Your task to perform on an android device: Open Google Image 0: 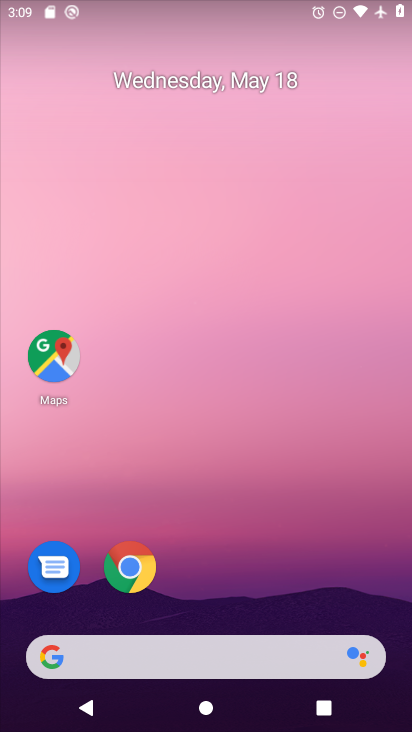
Step 0: drag from (284, 592) to (270, 196)
Your task to perform on an android device: Open Google Image 1: 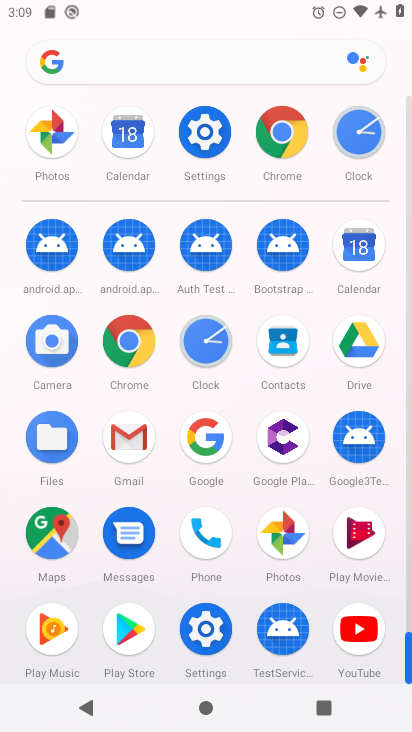
Step 1: click (189, 437)
Your task to perform on an android device: Open Google Image 2: 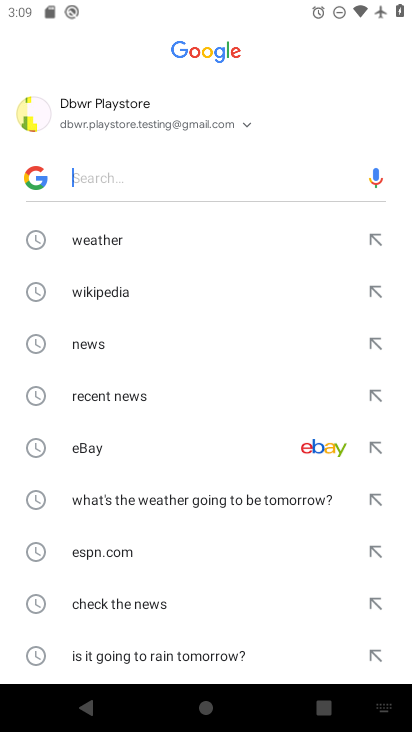
Step 2: task complete